Your task to perform on an android device: turn off data saver in the chrome app Image 0: 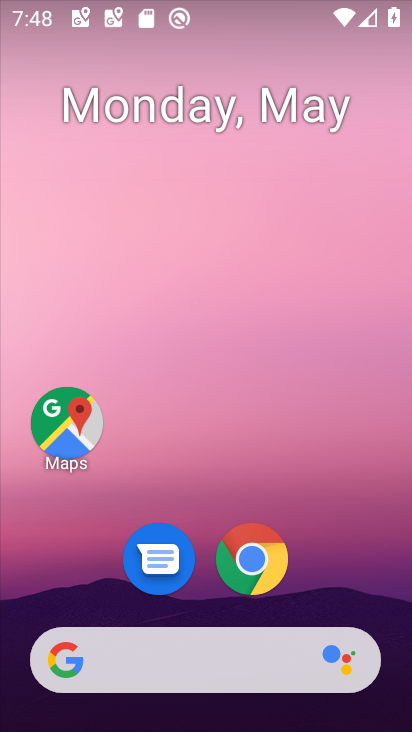
Step 0: drag from (375, 633) to (323, 101)
Your task to perform on an android device: turn off data saver in the chrome app Image 1: 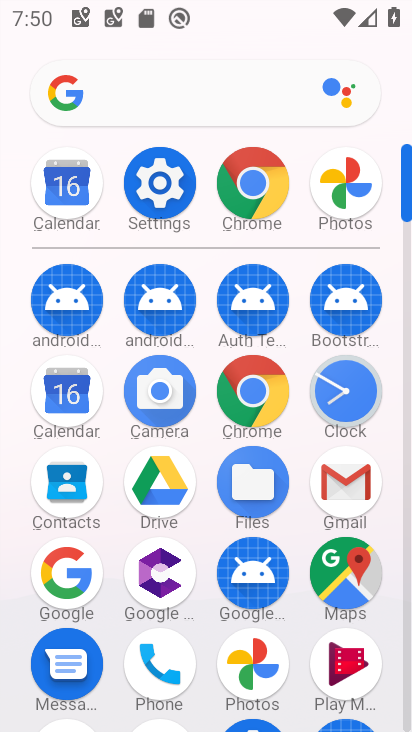
Step 1: click (247, 394)
Your task to perform on an android device: turn off data saver in the chrome app Image 2: 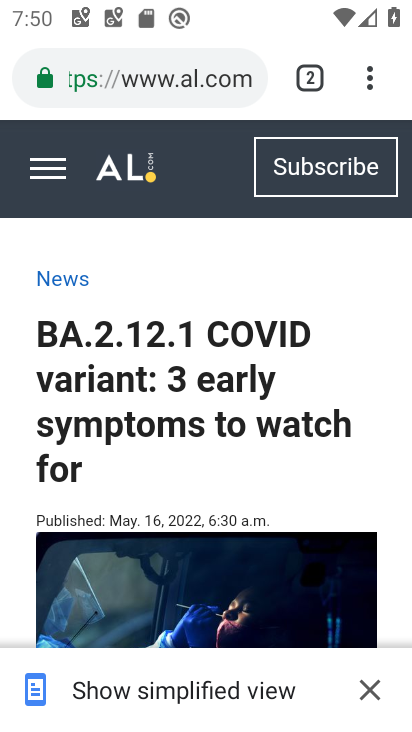
Step 2: press back button
Your task to perform on an android device: turn off data saver in the chrome app Image 3: 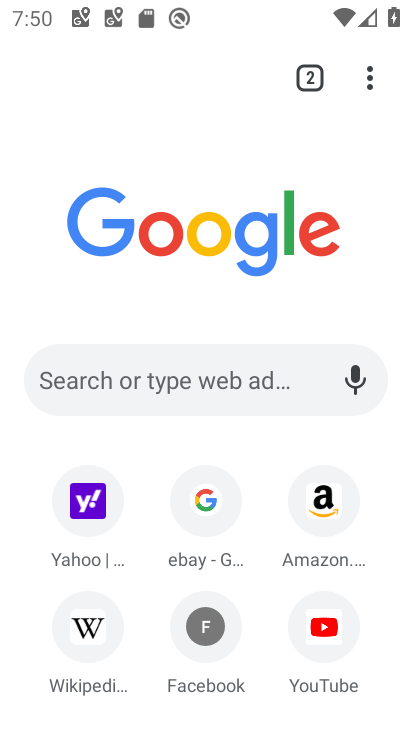
Step 3: click (369, 75)
Your task to perform on an android device: turn off data saver in the chrome app Image 4: 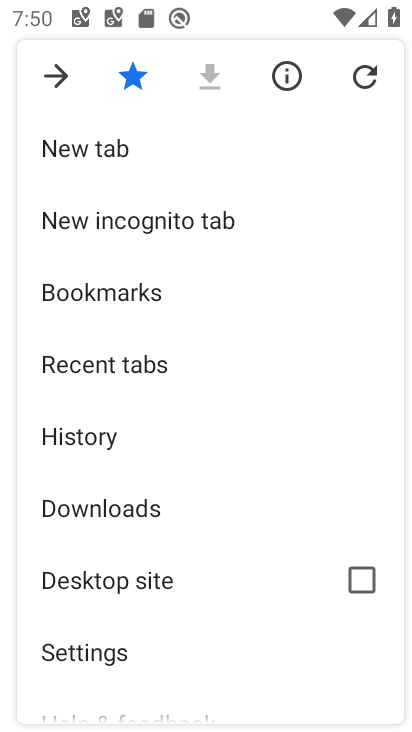
Step 4: click (150, 642)
Your task to perform on an android device: turn off data saver in the chrome app Image 5: 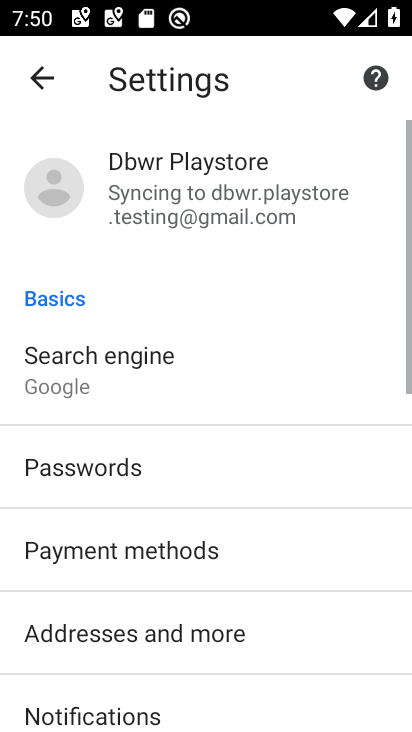
Step 5: drag from (151, 644) to (187, 151)
Your task to perform on an android device: turn off data saver in the chrome app Image 6: 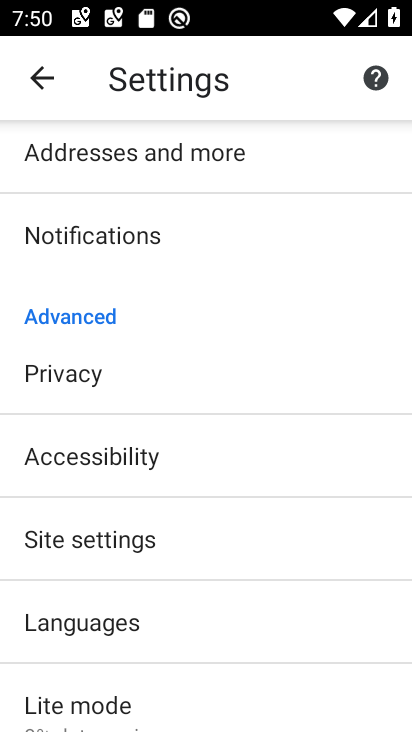
Step 6: drag from (99, 699) to (181, 192)
Your task to perform on an android device: turn off data saver in the chrome app Image 7: 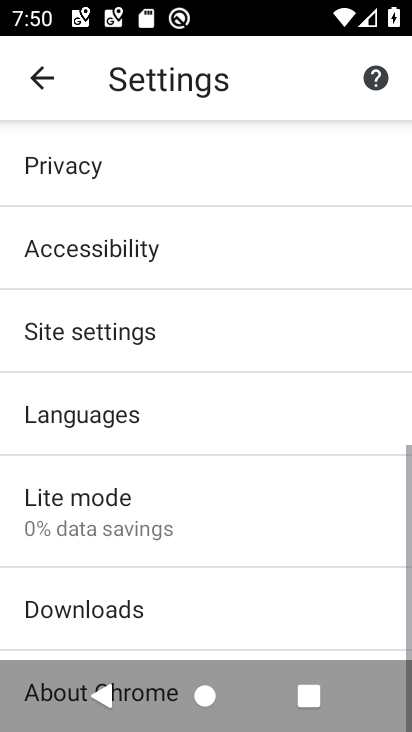
Step 7: click (153, 506)
Your task to perform on an android device: turn off data saver in the chrome app Image 8: 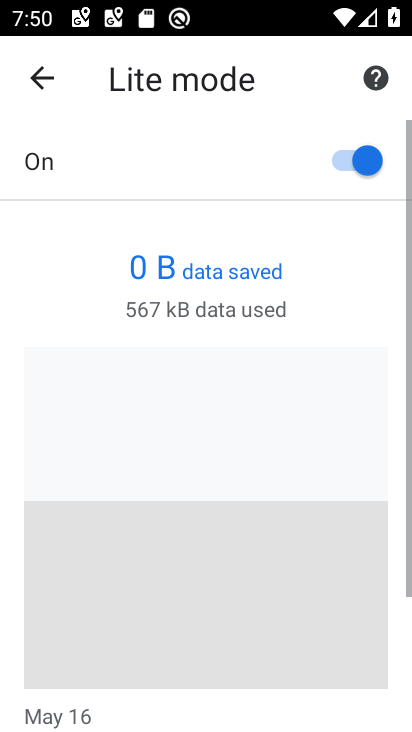
Step 8: click (326, 148)
Your task to perform on an android device: turn off data saver in the chrome app Image 9: 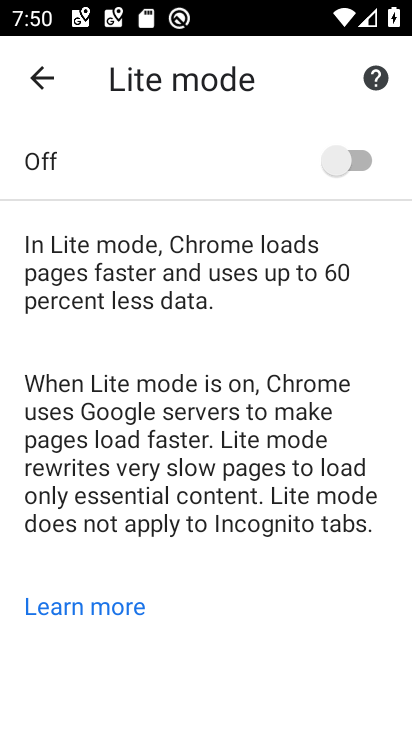
Step 9: task complete